Your task to perform on an android device: turn off data saver in the chrome app Image 0: 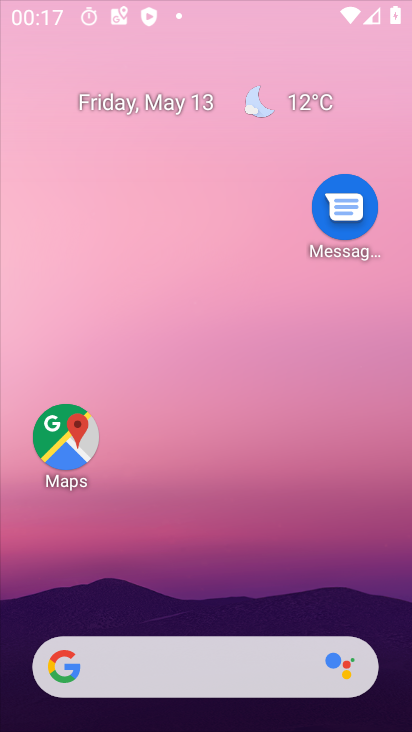
Step 0: press home button
Your task to perform on an android device: turn off data saver in the chrome app Image 1: 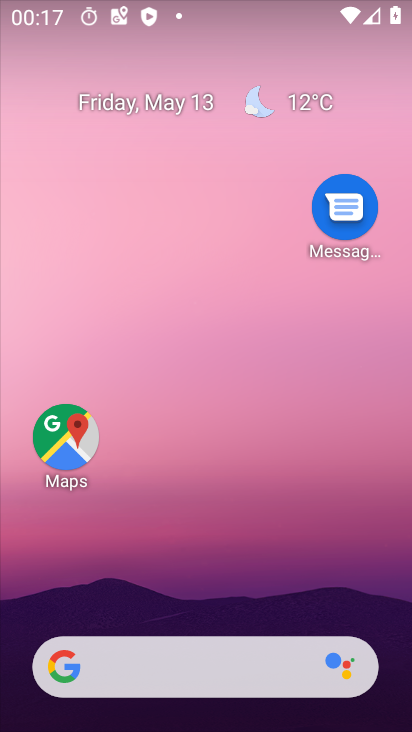
Step 1: drag from (238, 582) to (263, 347)
Your task to perform on an android device: turn off data saver in the chrome app Image 2: 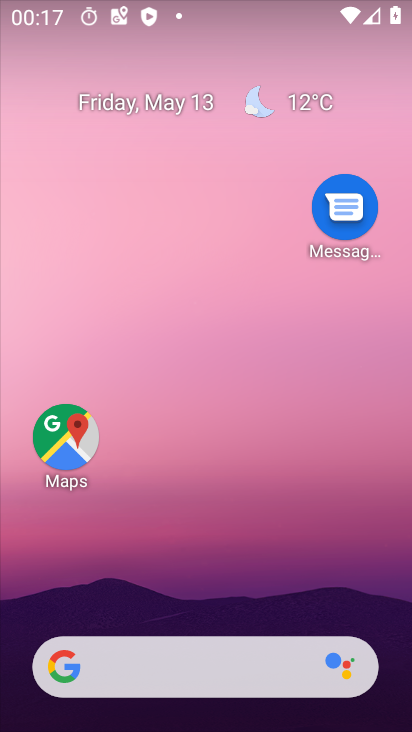
Step 2: drag from (310, 583) to (282, 79)
Your task to perform on an android device: turn off data saver in the chrome app Image 3: 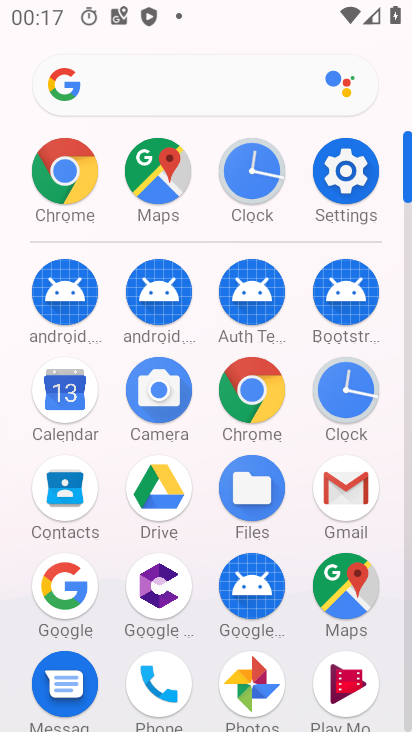
Step 3: click (41, 133)
Your task to perform on an android device: turn off data saver in the chrome app Image 4: 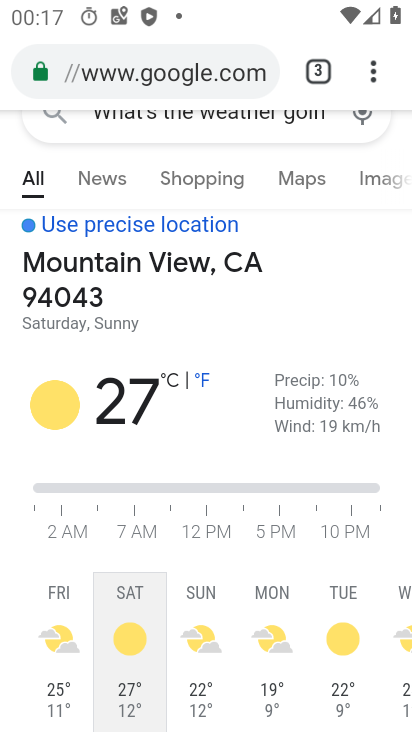
Step 4: drag from (372, 74) to (196, 551)
Your task to perform on an android device: turn off data saver in the chrome app Image 5: 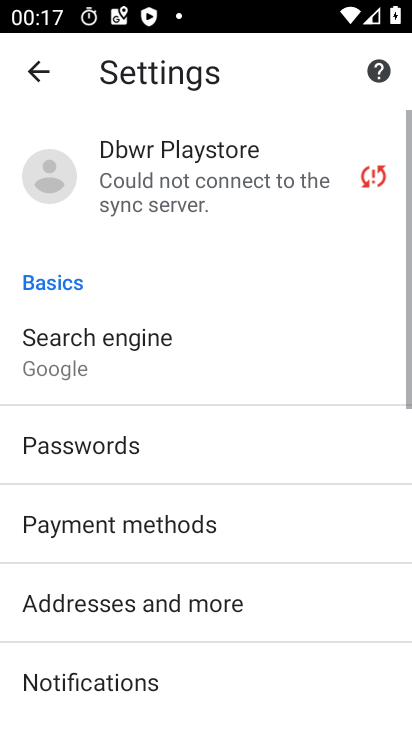
Step 5: drag from (168, 558) to (179, 119)
Your task to perform on an android device: turn off data saver in the chrome app Image 6: 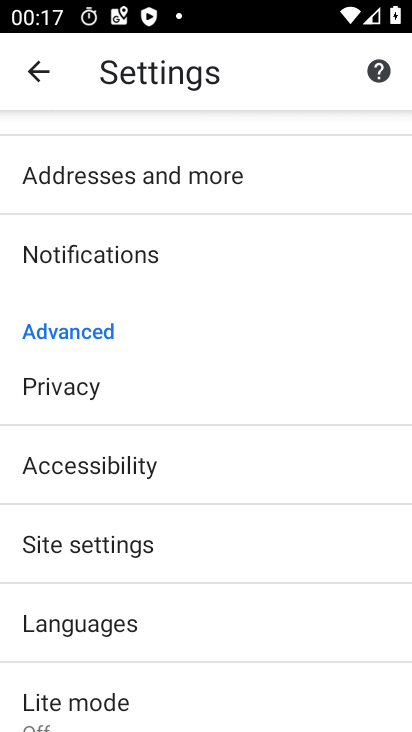
Step 6: drag from (182, 599) to (174, 343)
Your task to perform on an android device: turn off data saver in the chrome app Image 7: 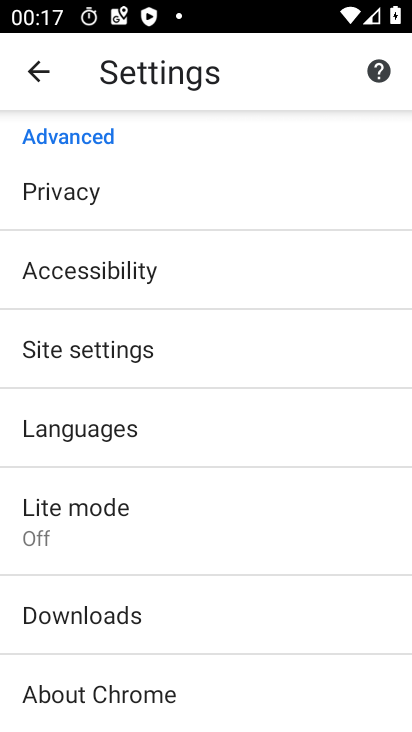
Step 7: click (94, 532)
Your task to perform on an android device: turn off data saver in the chrome app Image 8: 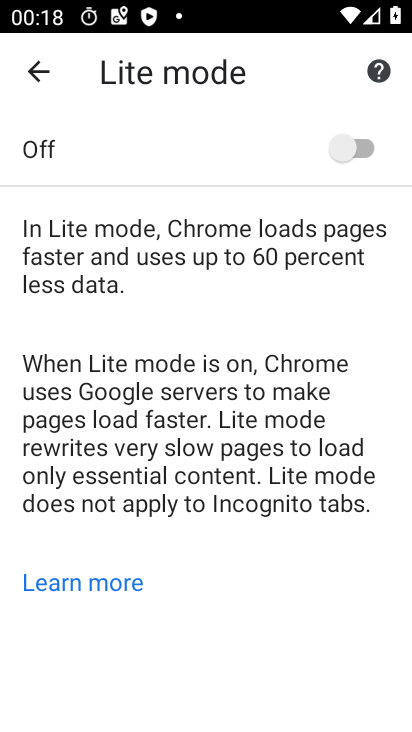
Step 8: task complete